Your task to perform on an android device: open chrome privacy settings Image 0: 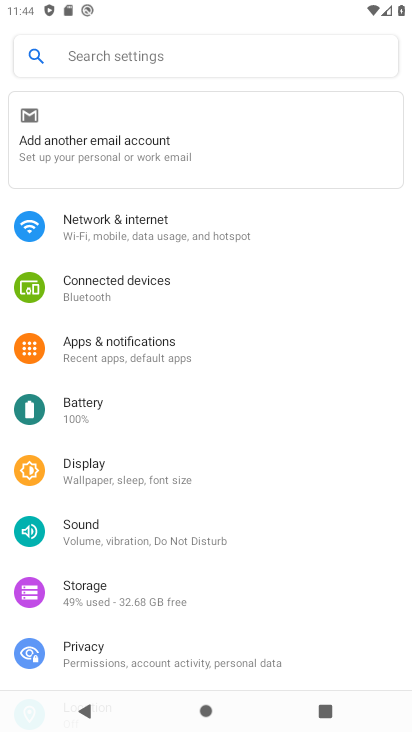
Step 0: drag from (145, 576) to (130, 280)
Your task to perform on an android device: open chrome privacy settings Image 1: 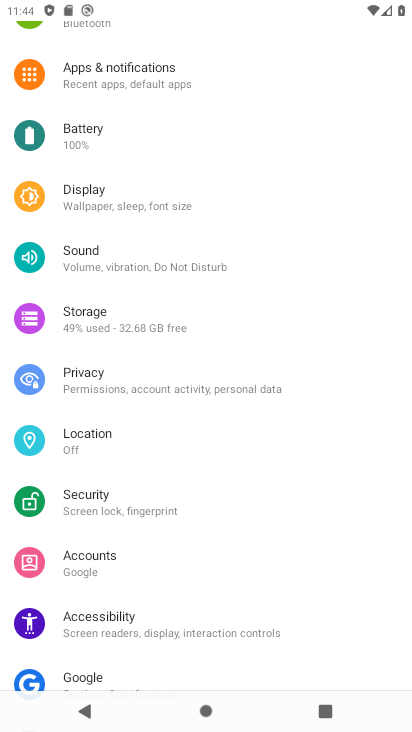
Step 1: click (78, 646)
Your task to perform on an android device: open chrome privacy settings Image 2: 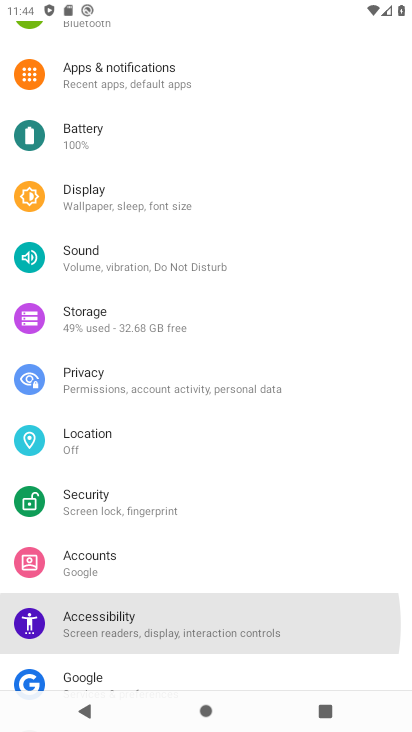
Step 2: click (79, 632)
Your task to perform on an android device: open chrome privacy settings Image 3: 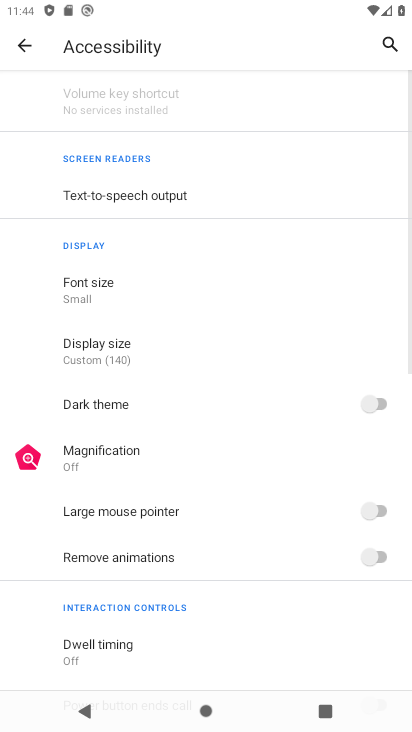
Step 3: click (23, 40)
Your task to perform on an android device: open chrome privacy settings Image 4: 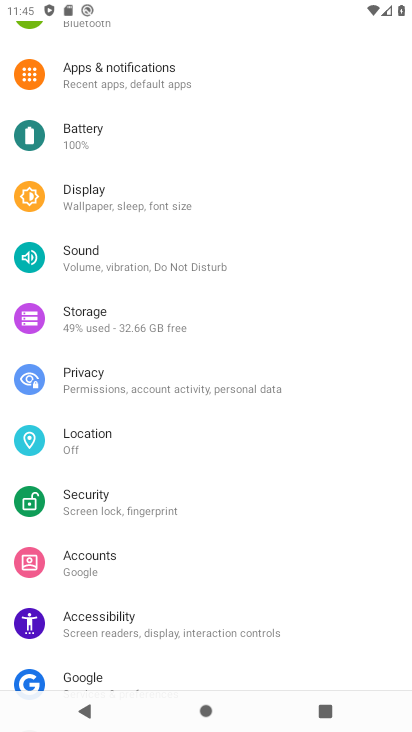
Step 4: click (97, 373)
Your task to perform on an android device: open chrome privacy settings Image 5: 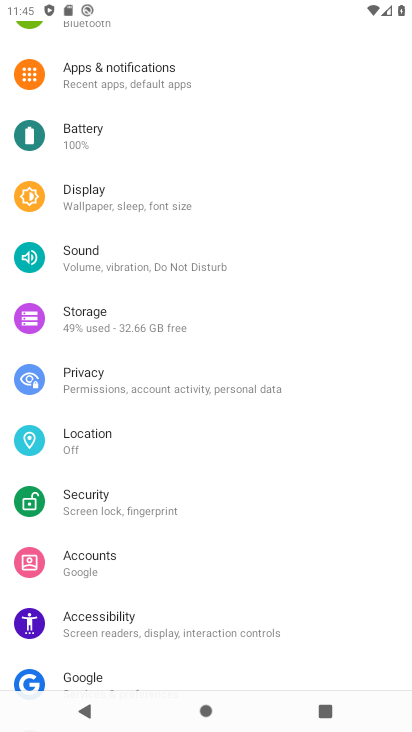
Step 5: click (97, 373)
Your task to perform on an android device: open chrome privacy settings Image 6: 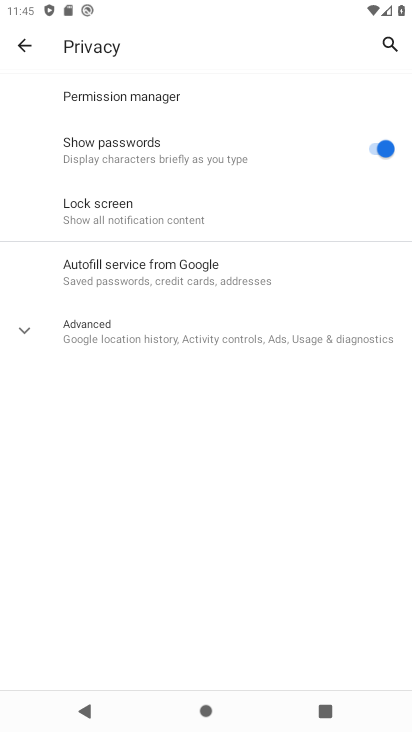
Step 6: click (107, 376)
Your task to perform on an android device: open chrome privacy settings Image 7: 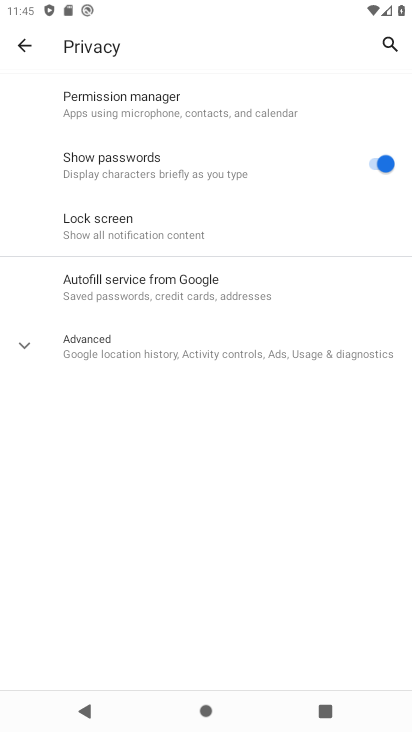
Step 7: task complete